Your task to perform on an android device: toggle location history Image 0: 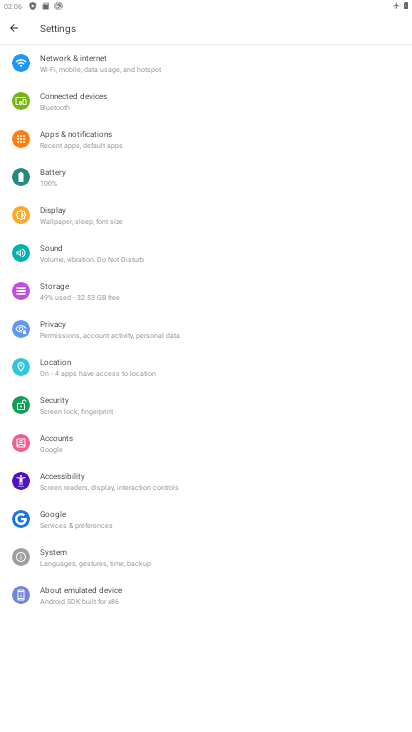
Step 0: click (91, 370)
Your task to perform on an android device: toggle location history Image 1: 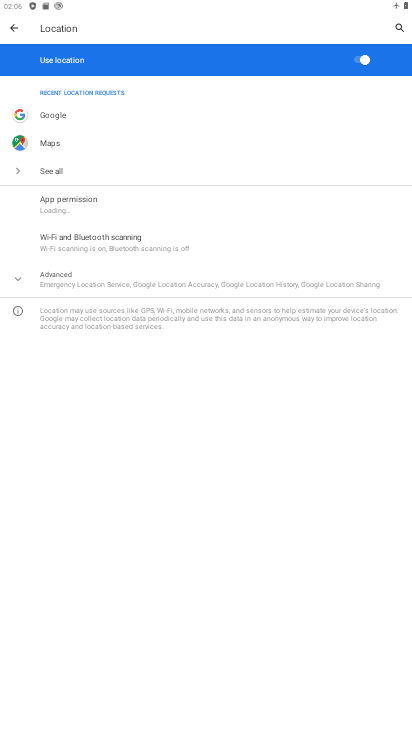
Step 1: click (79, 284)
Your task to perform on an android device: toggle location history Image 2: 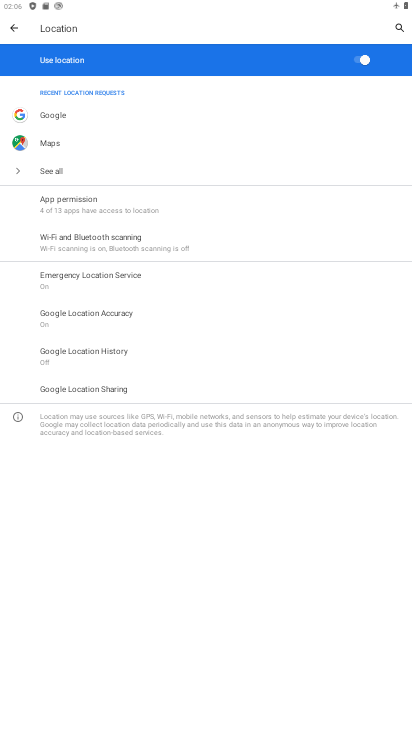
Step 2: click (143, 350)
Your task to perform on an android device: toggle location history Image 3: 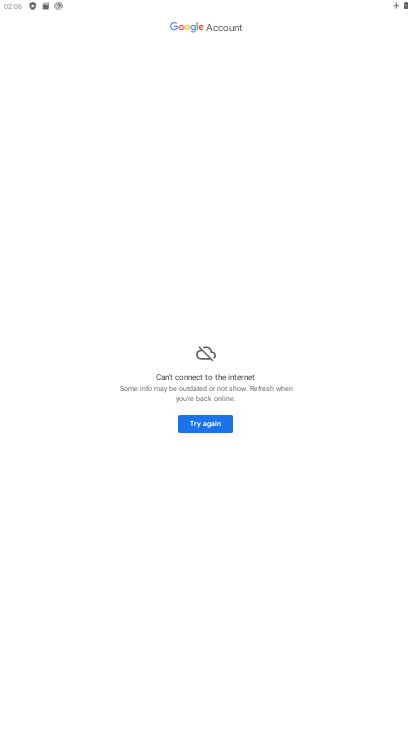
Step 3: task complete